Your task to perform on an android device: When is my next meeting? Image 0: 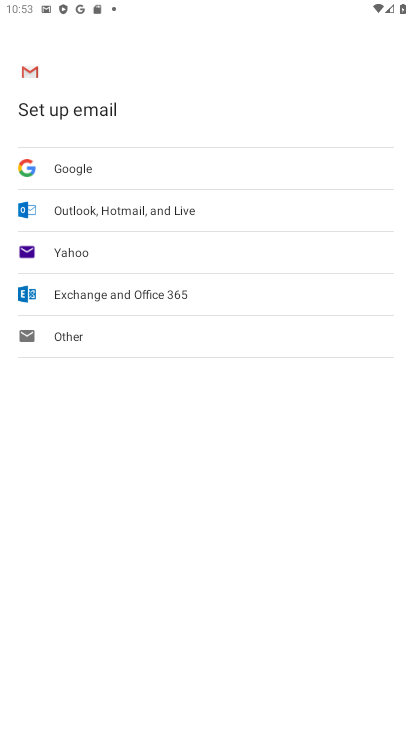
Step 0: press home button
Your task to perform on an android device: When is my next meeting? Image 1: 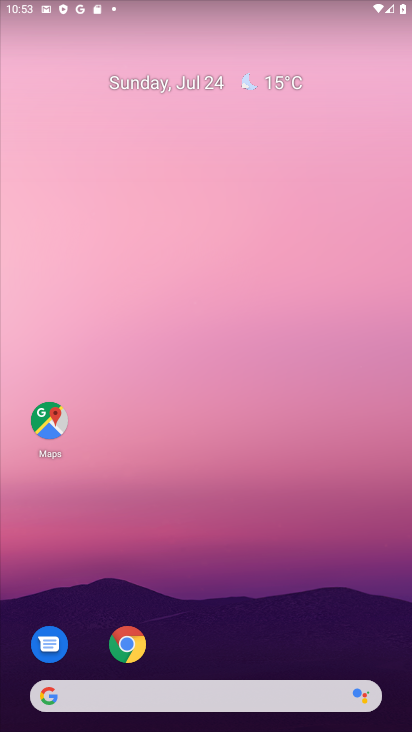
Step 1: drag from (202, 722) to (199, 275)
Your task to perform on an android device: When is my next meeting? Image 2: 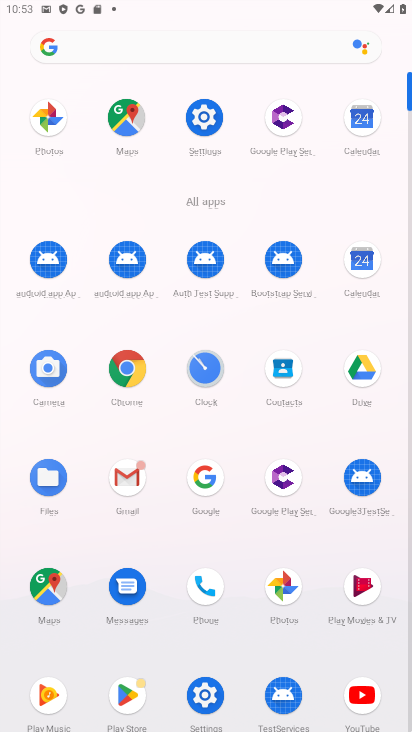
Step 2: click (365, 251)
Your task to perform on an android device: When is my next meeting? Image 3: 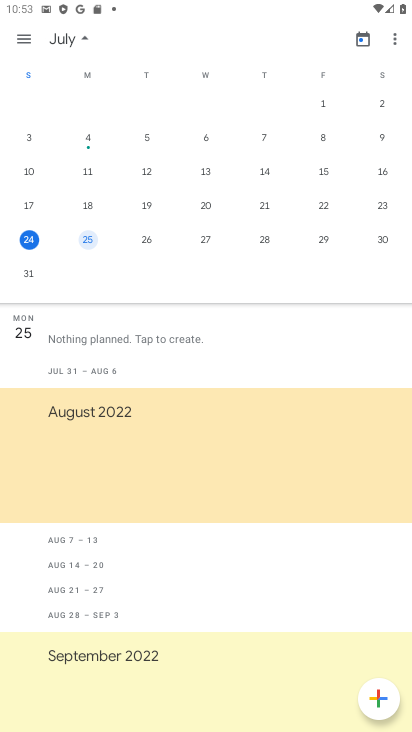
Step 3: click (84, 240)
Your task to perform on an android device: When is my next meeting? Image 4: 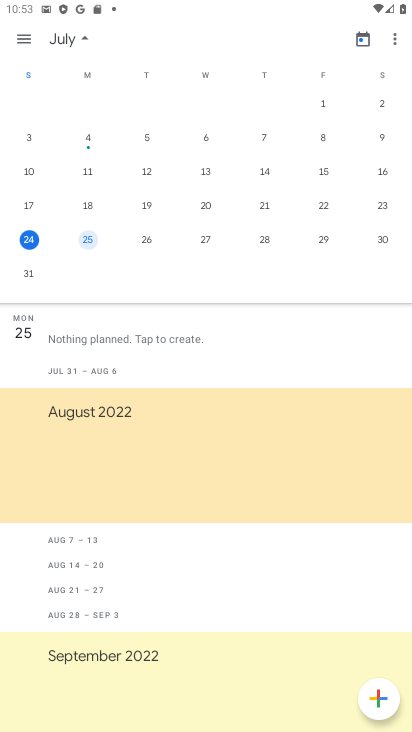
Step 4: click (81, 240)
Your task to perform on an android device: When is my next meeting? Image 5: 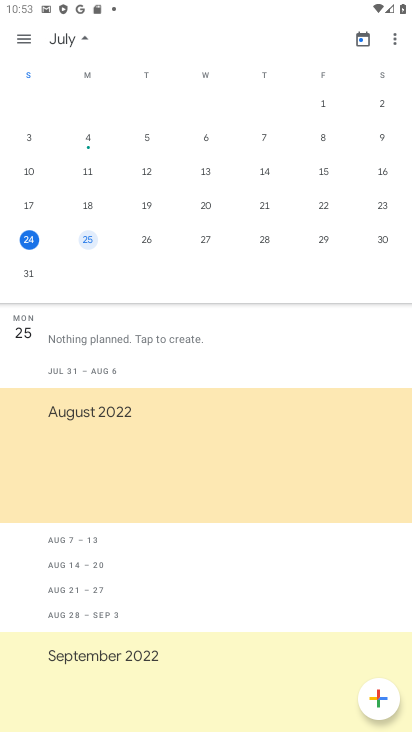
Step 5: click (81, 240)
Your task to perform on an android device: When is my next meeting? Image 6: 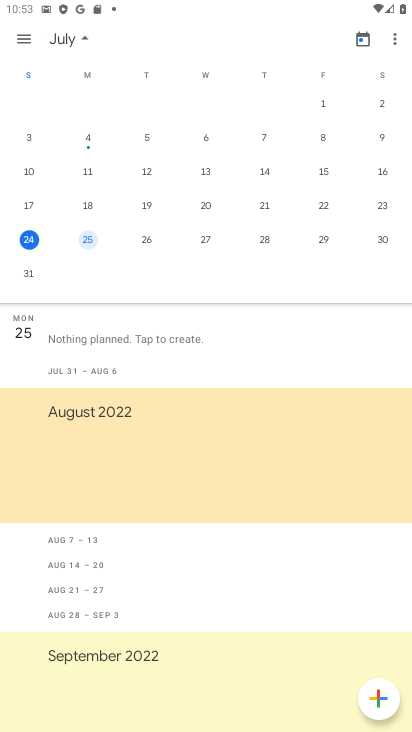
Step 6: click (89, 238)
Your task to perform on an android device: When is my next meeting? Image 7: 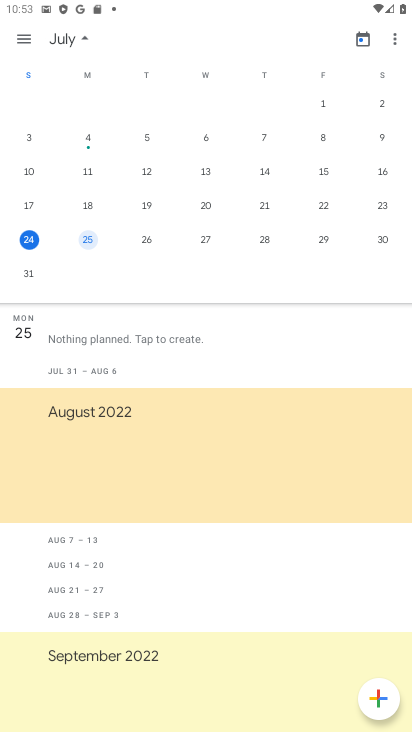
Step 7: click (89, 238)
Your task to perform on an android device: When is my next meeting? Image 8: 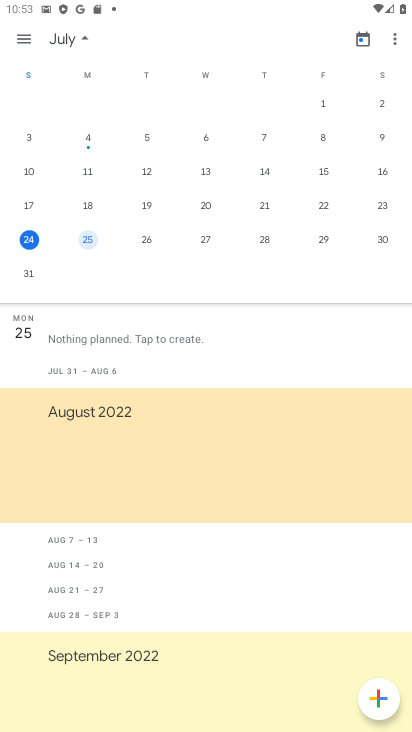
Step 8: click (89, 238)
Your task to perform on an android device: When is my next meeting? Image 9: 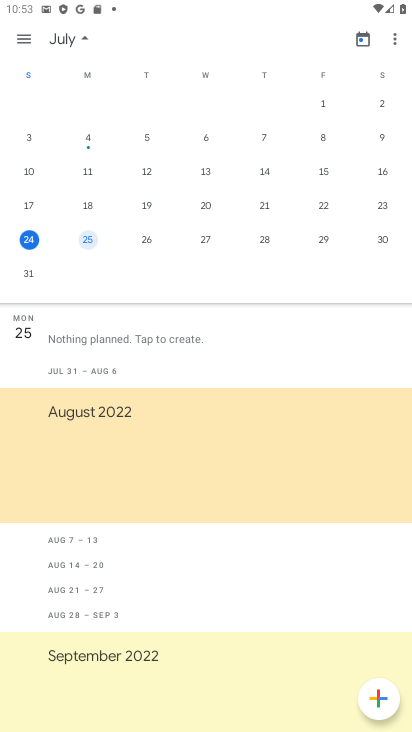
Step 9: click (89, 238)
Your task to perform on an android device: When is my next meeting? Image 10: 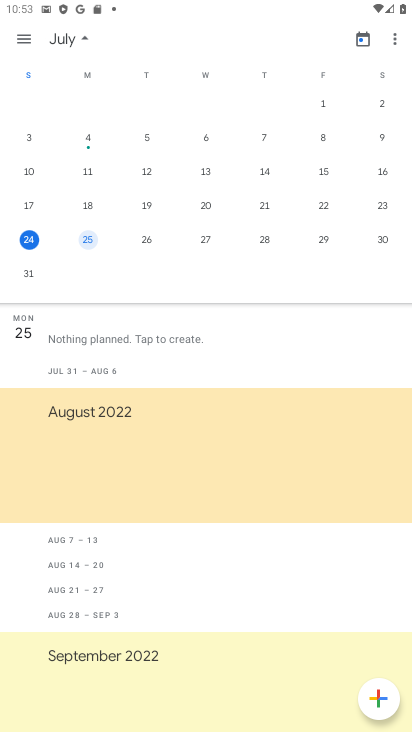
Step 10: click (89, 238)
Your task to perform on an android device: When is my next meeting? Image 11: 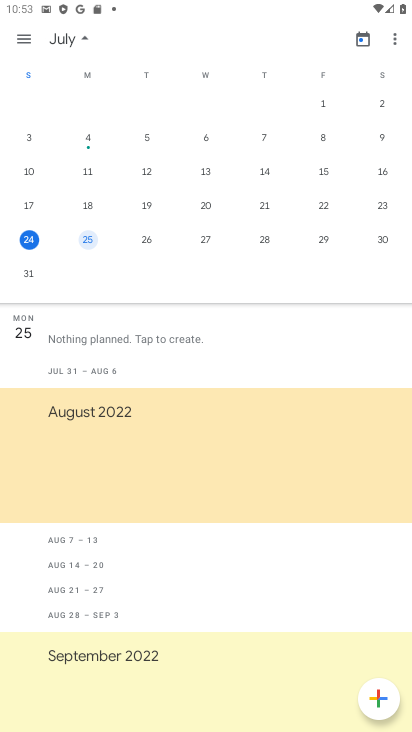
Step 11: click (22, 322)
Your task to perform on an android device: When is my next meeting? Image 12: 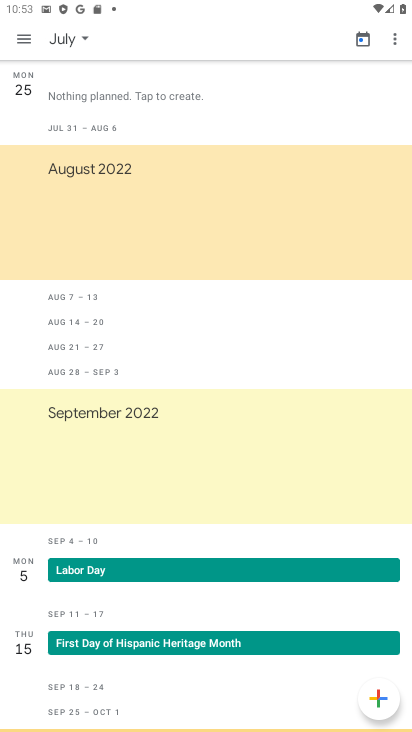
Step 12: task complete